Your task to perform on an android device: Open Reddit.com Image 0: 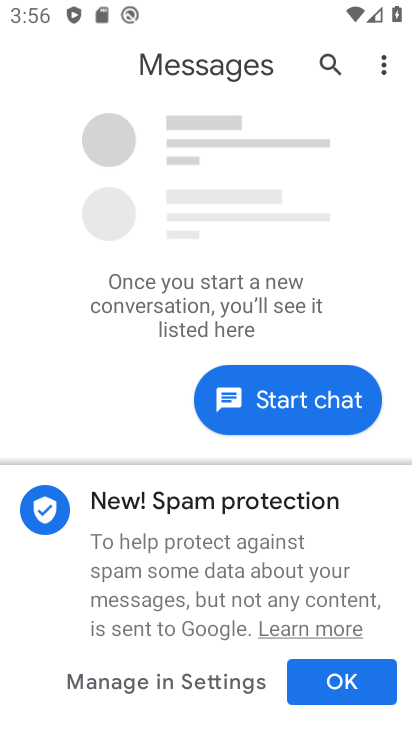
Step 0: press back button
Your task to perform on an android device: Open Reddit.com Image 1: 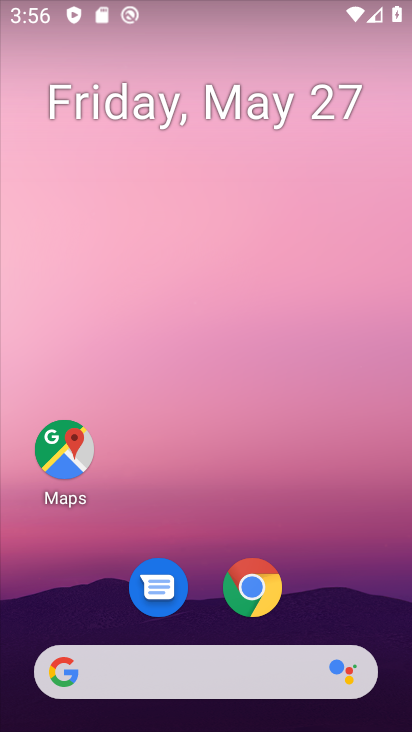
Step 1: drag from (359, 562) to (288, 50)
Your task to perform on an android device: Open Reddit.com Image 2: 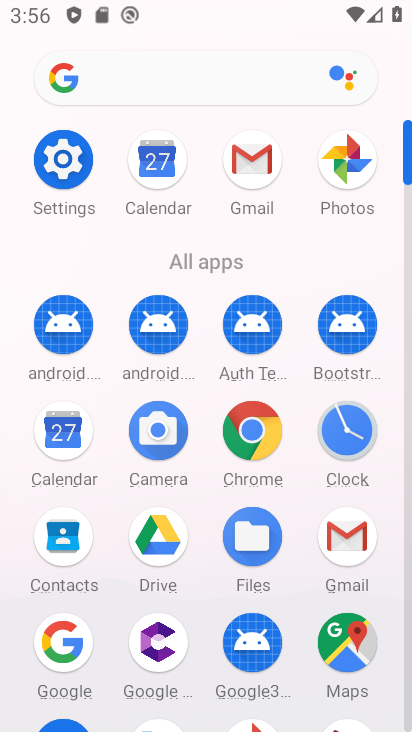
Step 2: drag from (10, 594) to (26, 270)
Your task to perform on an android device: Open Reddit.com Image 3: 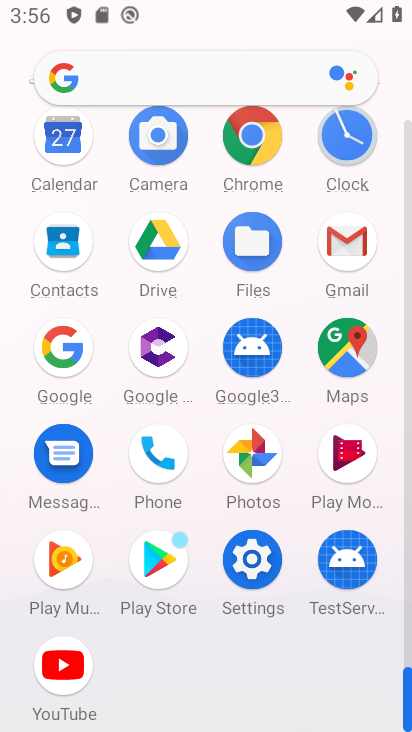
Step 3: click (252, 132)
Your task to perform on an android device: Open Reddit.com Image 4: 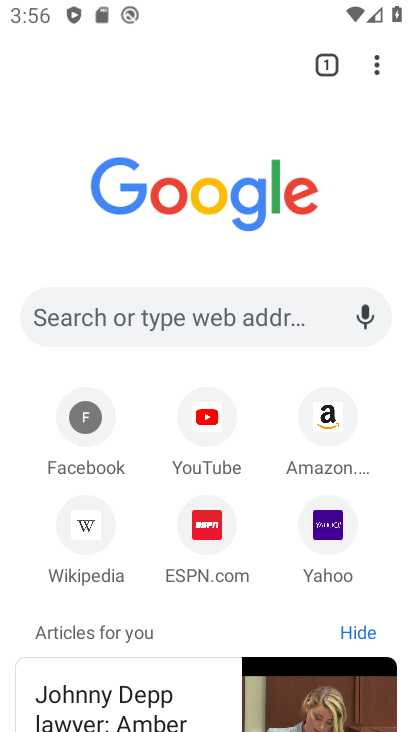
Step 4: click (155, 316)
Your task to perform on an android device: Open Reddit.com Image 5: 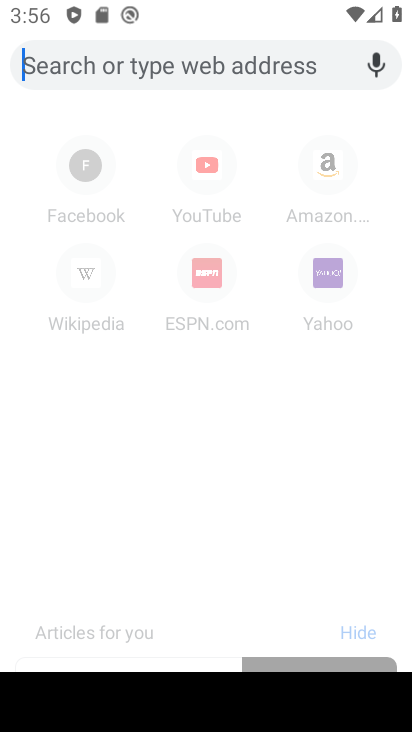
Step 5: type "Reddit.com"
Your task to perform on an android device: Open Reddit.com Image 6: 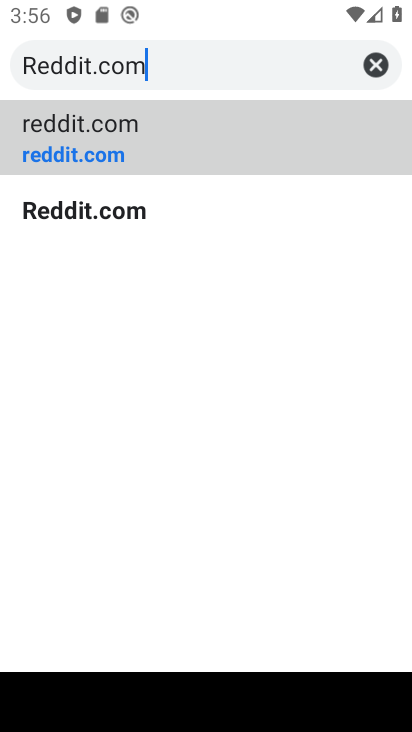
Step 6: type ""
Your task to perform on an android device: Open Reddit.com Image 7: 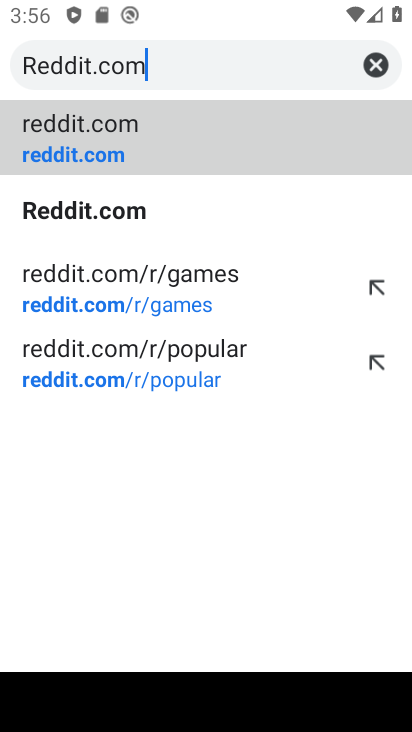
Step 7: click (189, 154)
Your task to perform on an android device: Open Reddit.com Image 8: 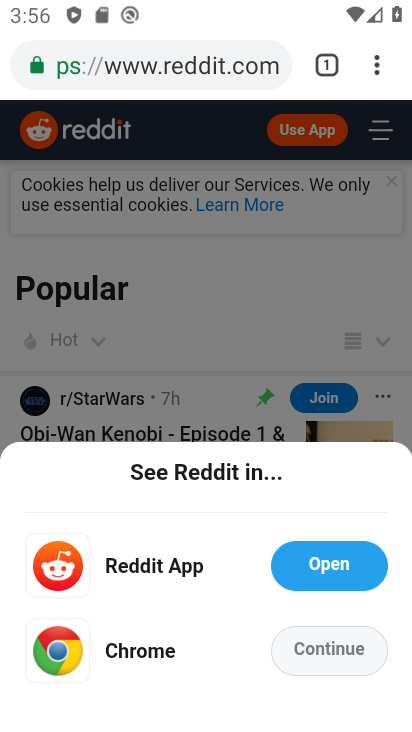
Step 8: task complete